Your task to perform on an android device: Clear all items from cart on costco. Image 0: 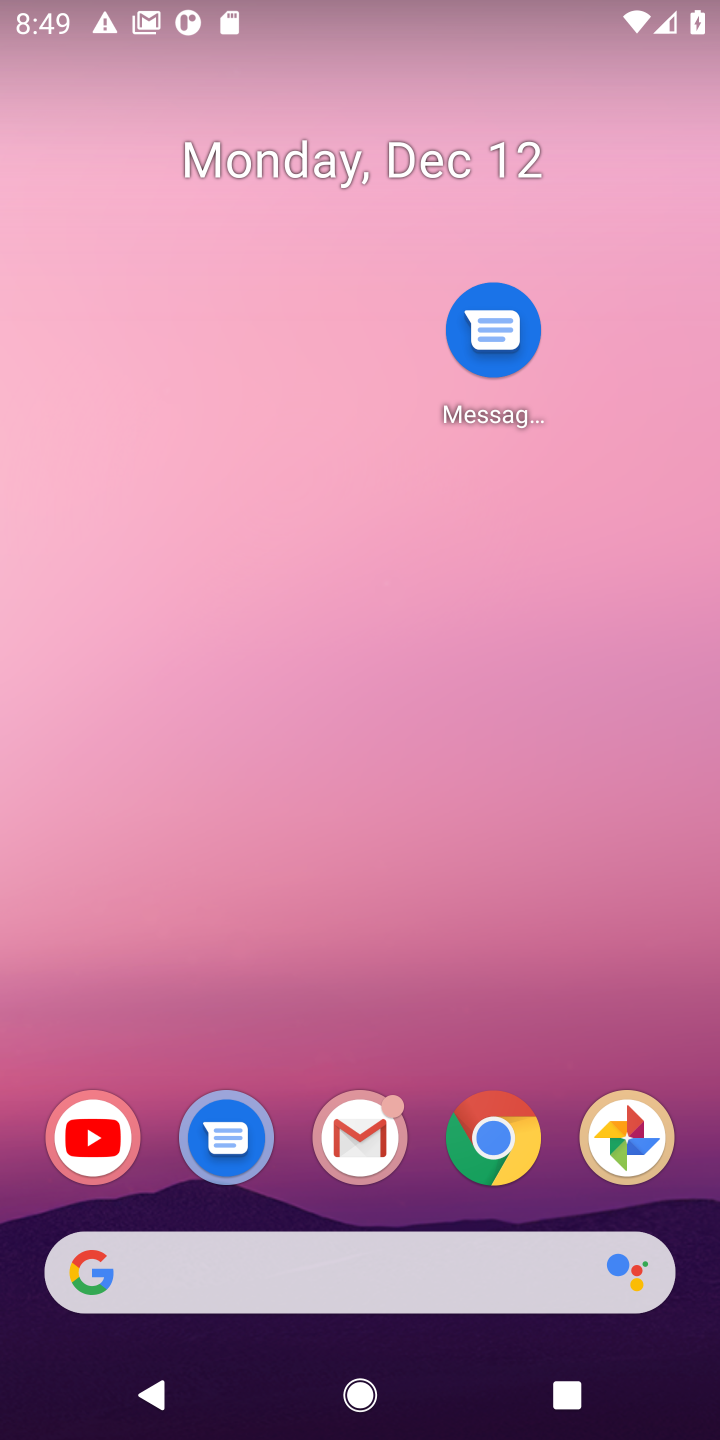
Step 0: drag from (174, 1257) to (216, 394)
Your task to perform on an android device: Clear all items from cart on costco. Image 1: 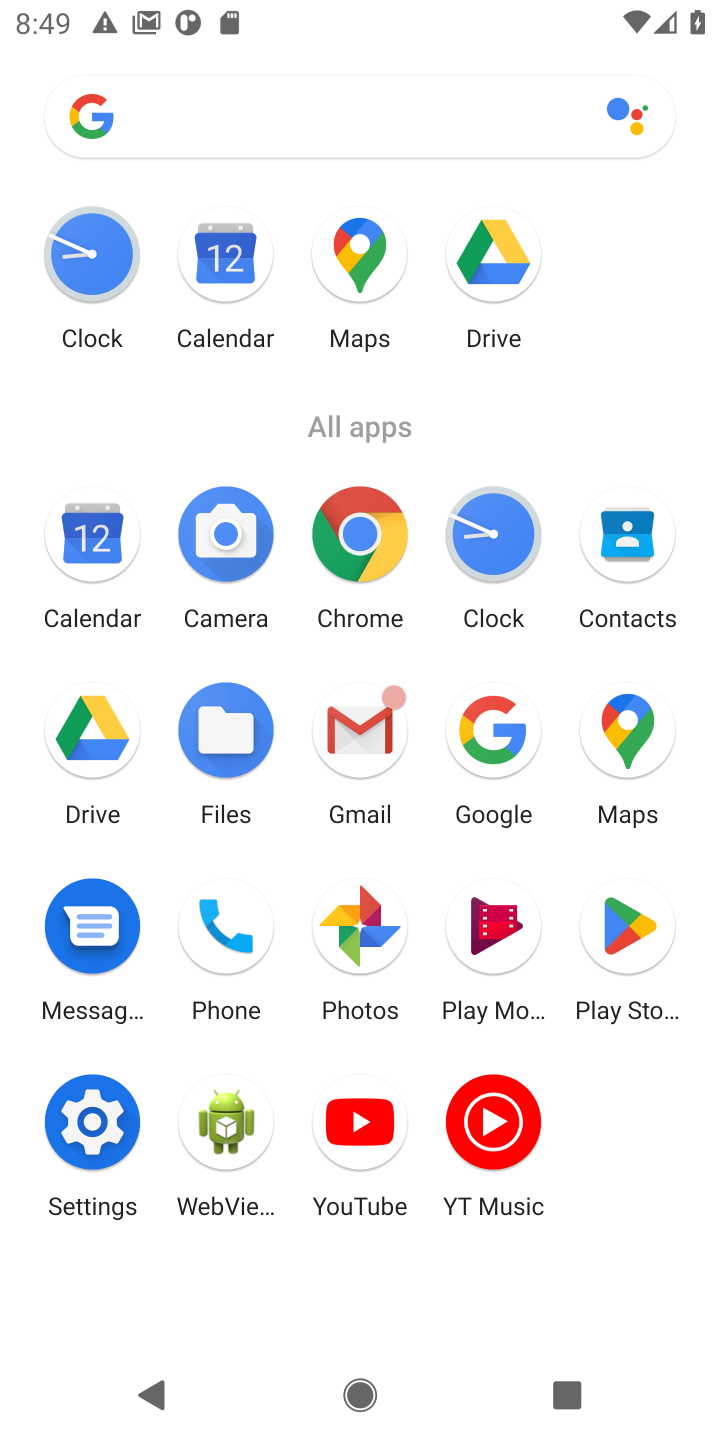
Step 1: click (473, 720)
Your task to perform on an android device: Clear all items from cart on costco. Image 2: 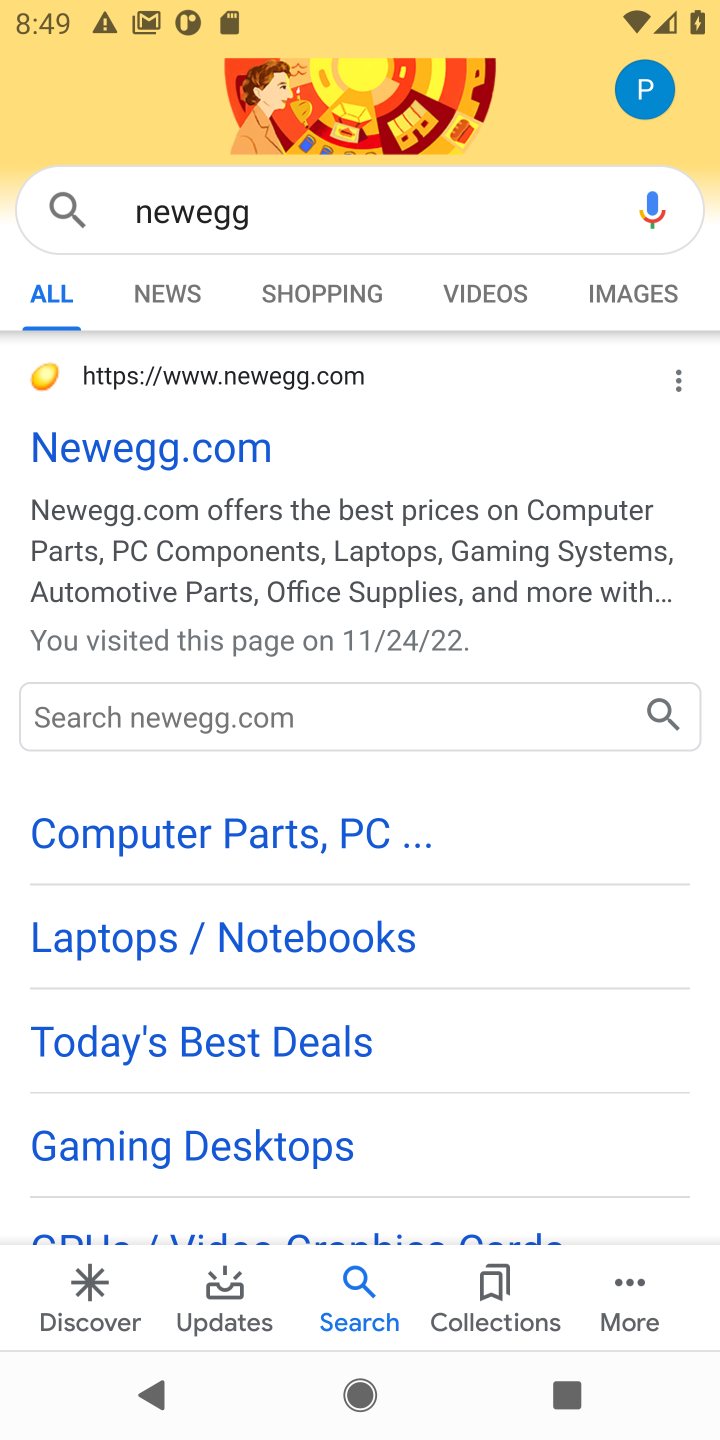
Step 2: click (208, 212)
Your task to perform on an android device: Clear all items from cart on costco. Image 3: 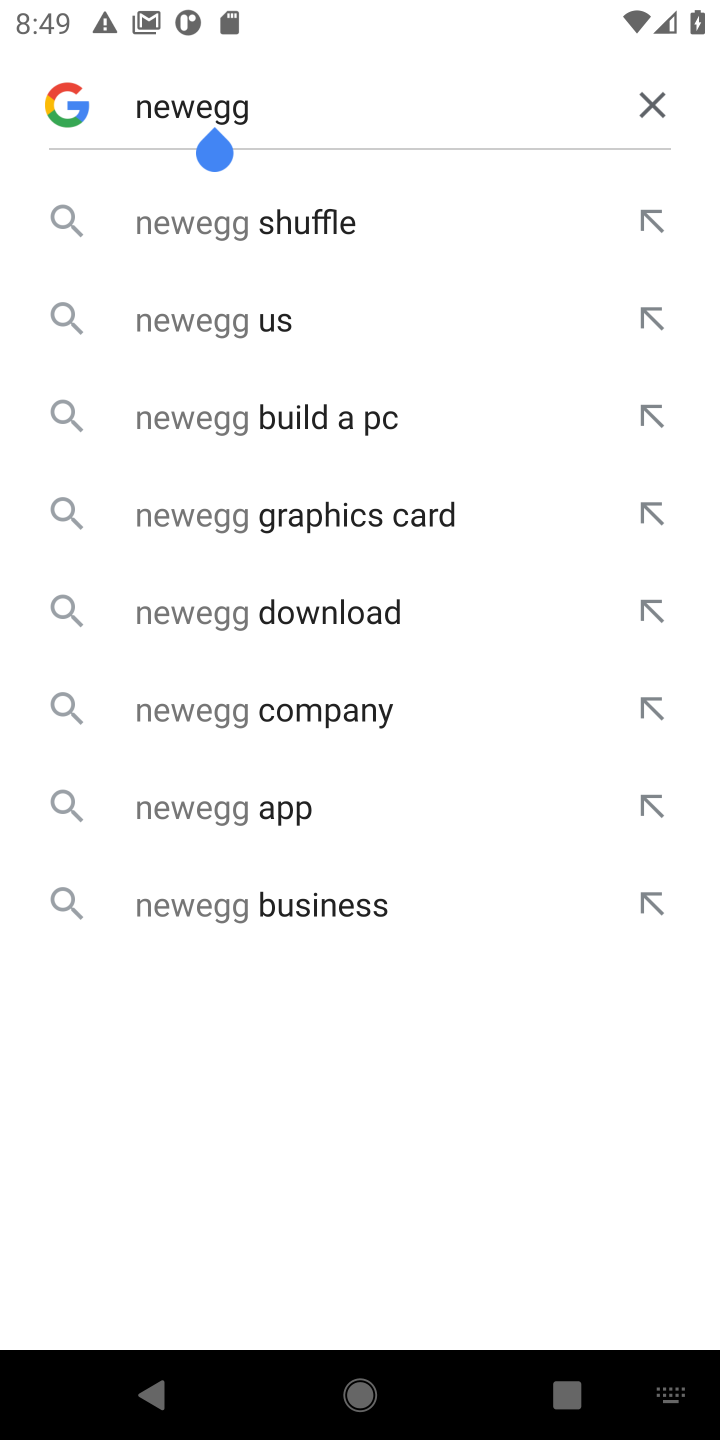
Step 3: click (666, 106)
Your task to perform on an android device: Clear all items from cart on costco. Image 4: 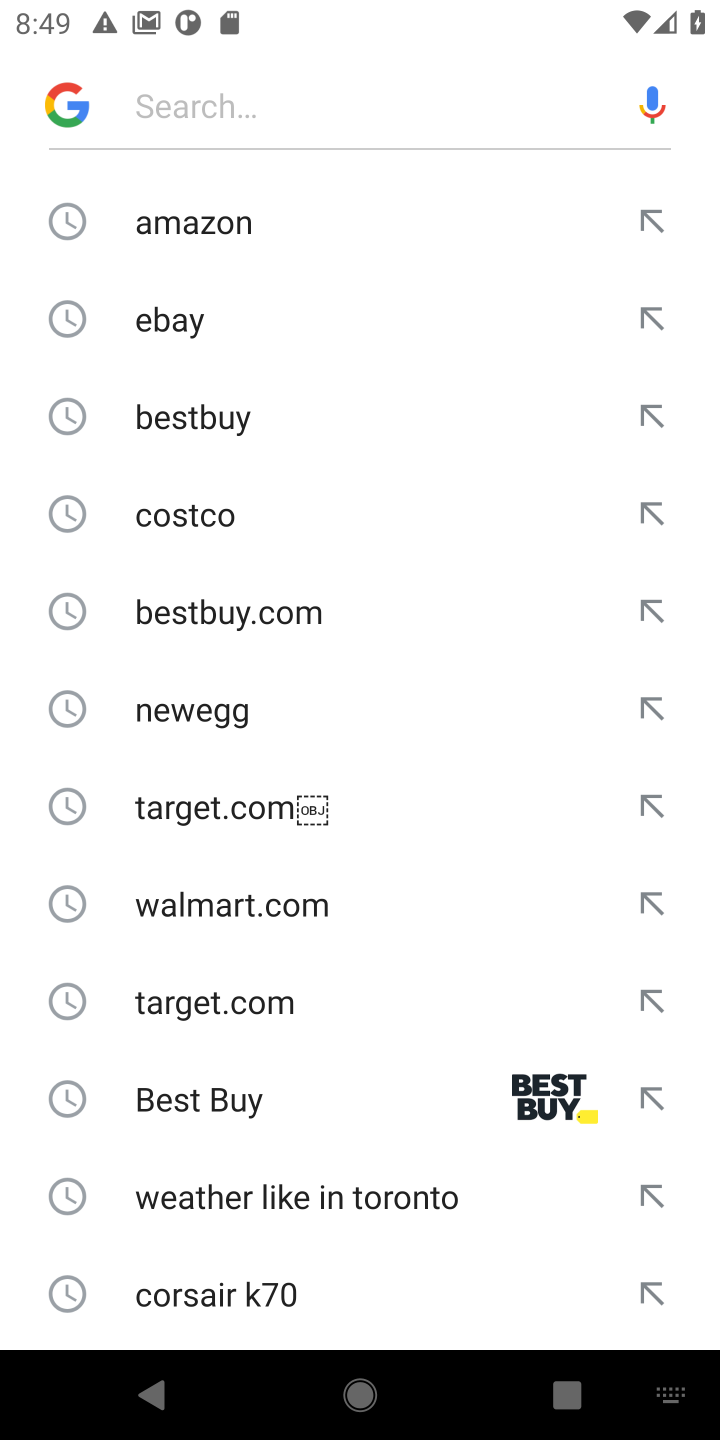
Step 4: click (195, 503)
Your task to perform on an android device: Clear all items from cart on costco. Image 5: 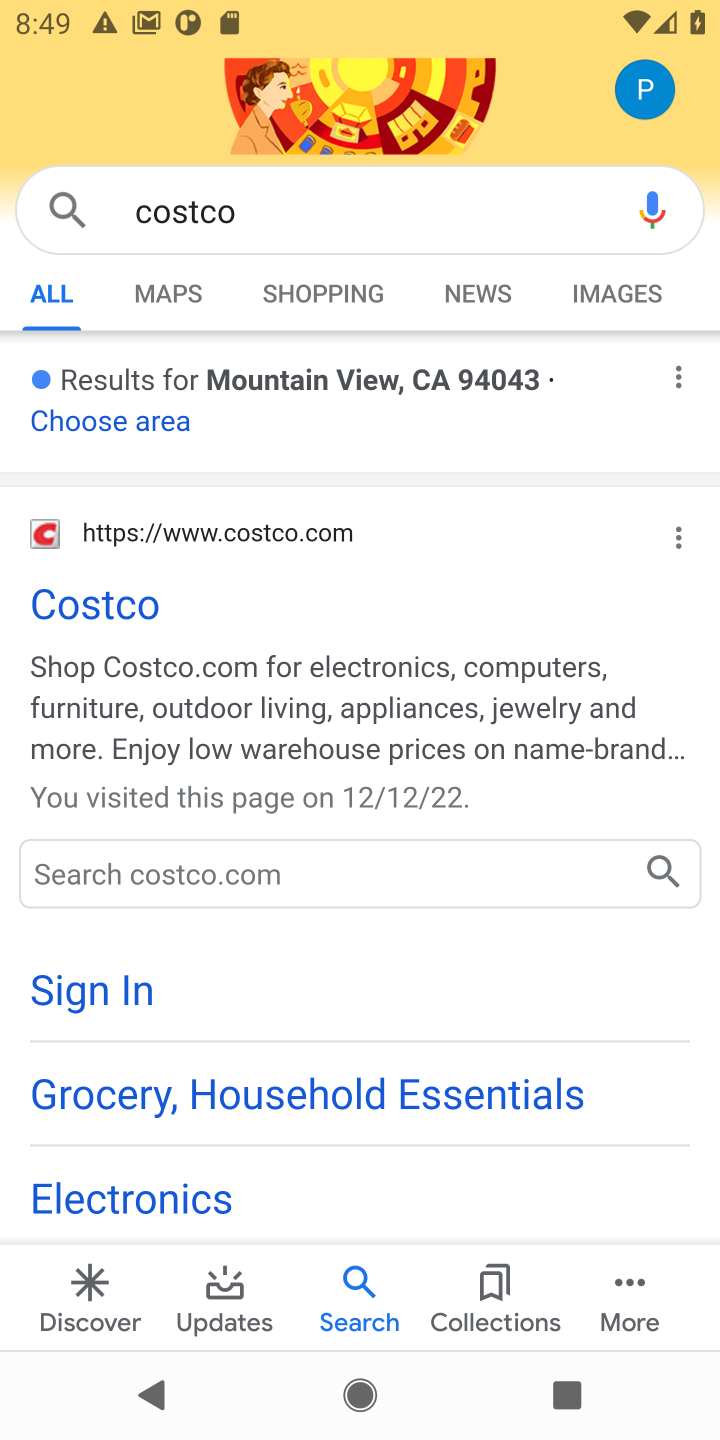
Step 5: click (102, 593)
Your task to perform on an android device: Clear all items from cart on costco. Image 6: 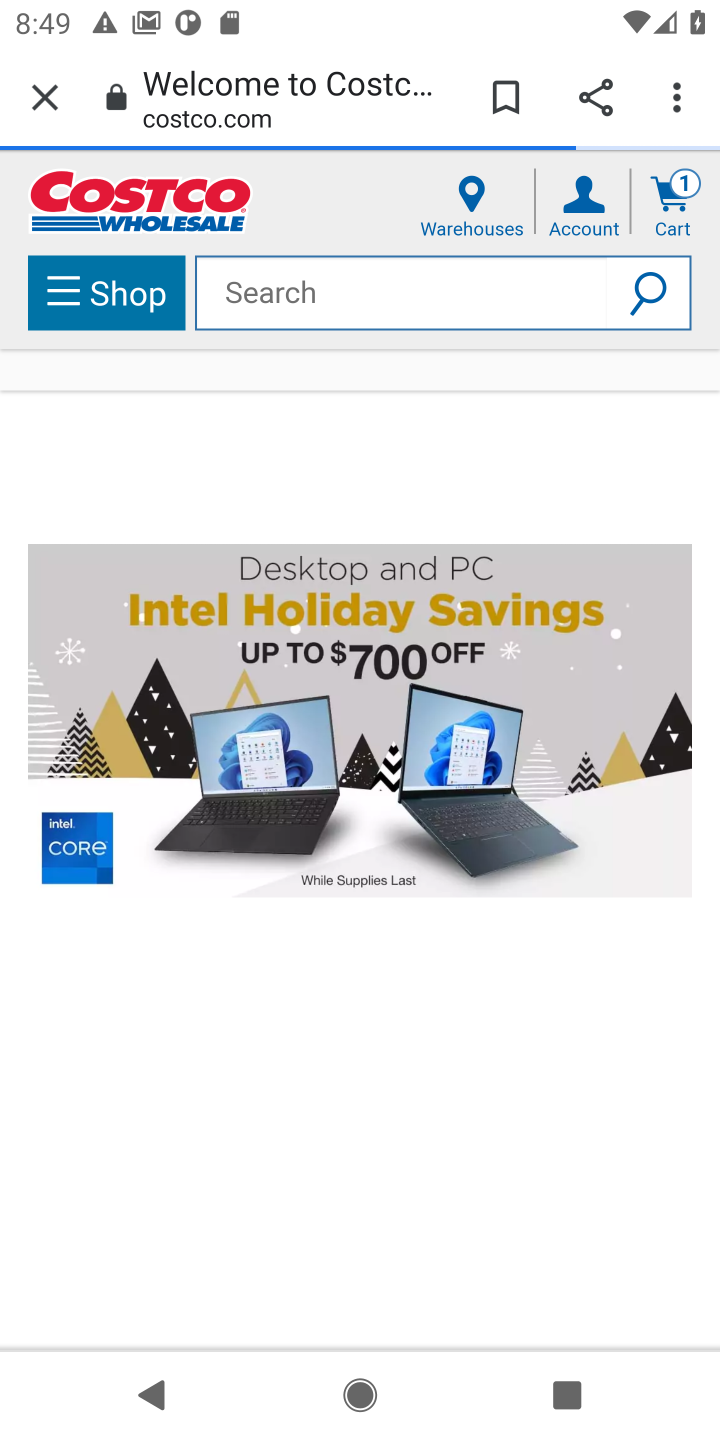
Step 6: click (298, 300)
Your task to perform on an android device: Clear all items from cart on costco. Image 7: 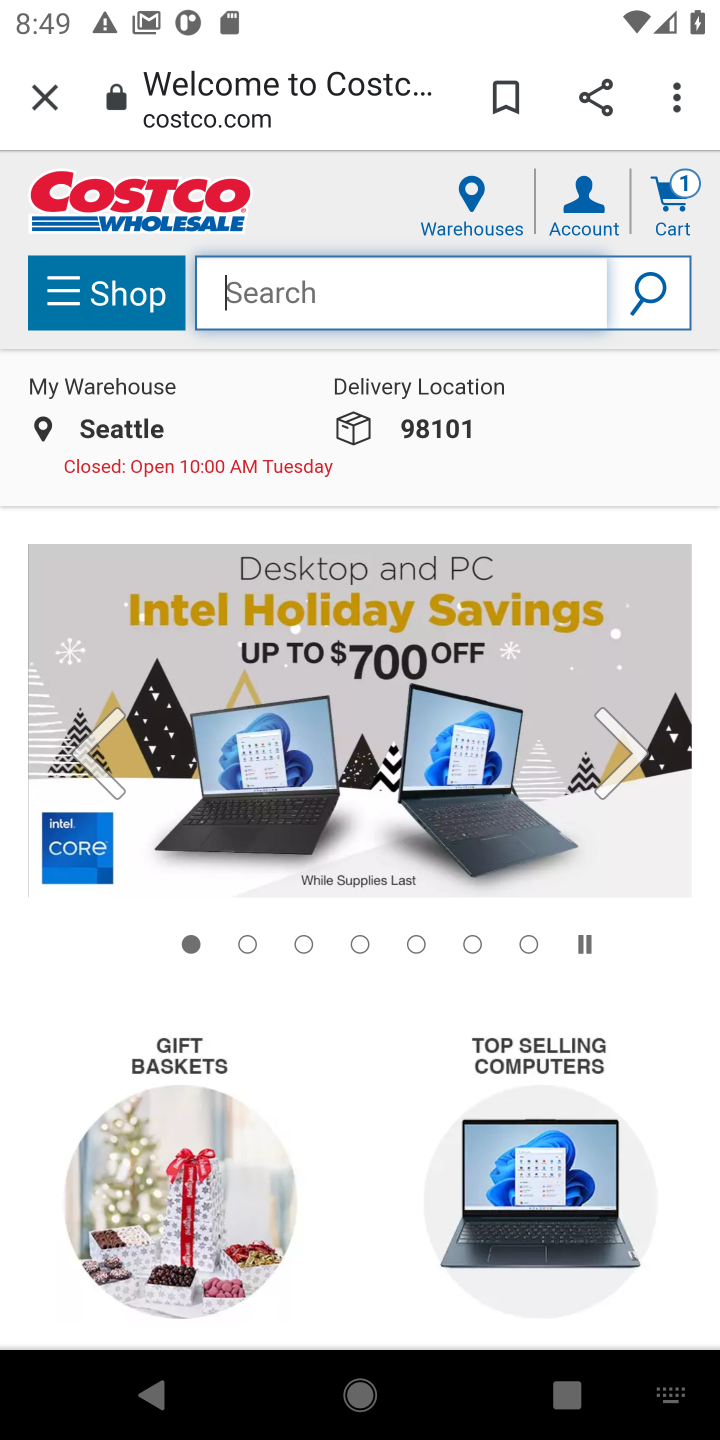
Step 7: click (663, 194)
Your task to perform on an android device: Clear all items from cart on costco. Image 8: 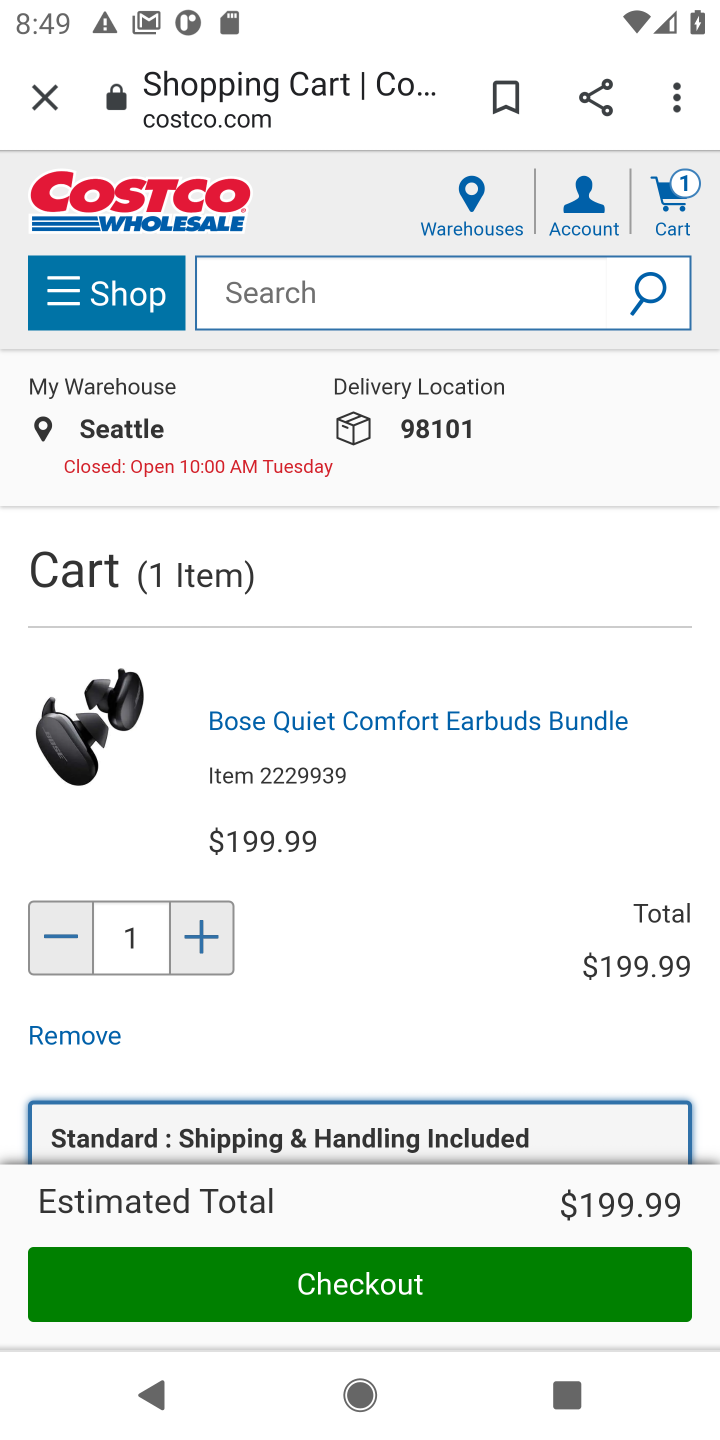
Step 8: click (58, 932)
Your task to perform on an android device: Clear all items from cart on costco. Image 9: 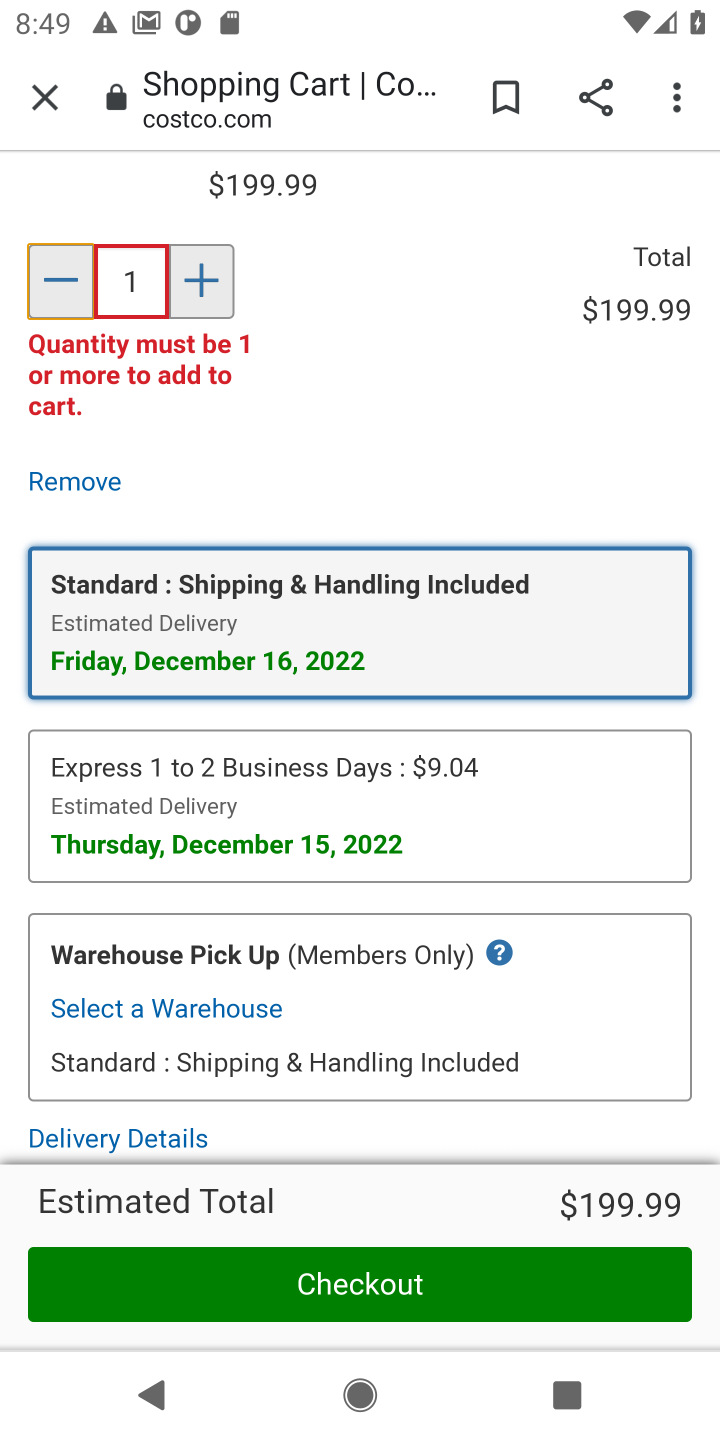
Step 9: task complete